Your task to perform on an android device: Turn off the flashlight Image 0: 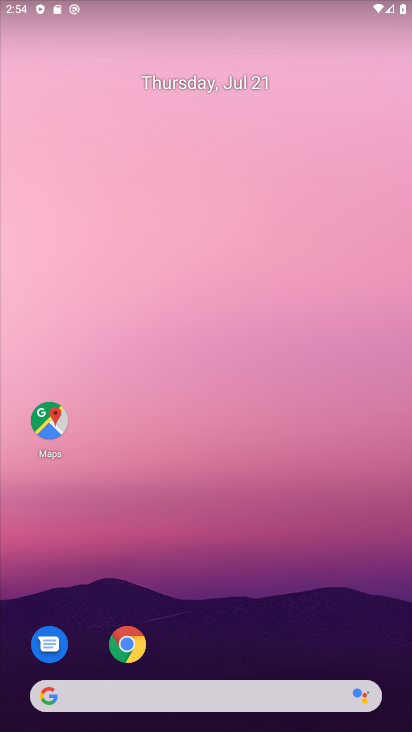
Step 0: press back button
Your task to perform on an android device: Turn off the flashlight Image 1: 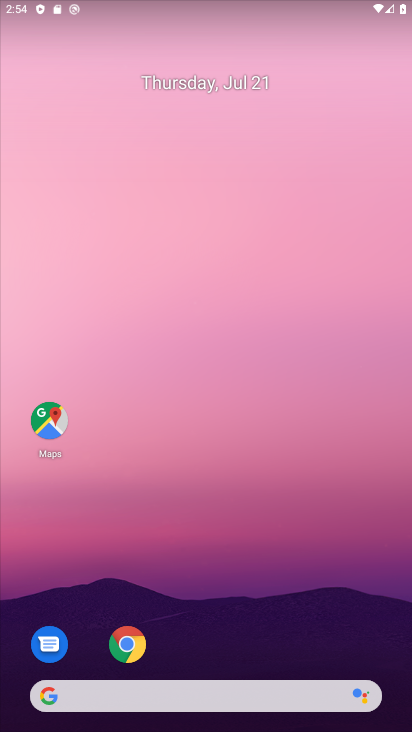
Step 1: task complete